Your task to perform on an android device: Open location settings Image 0: 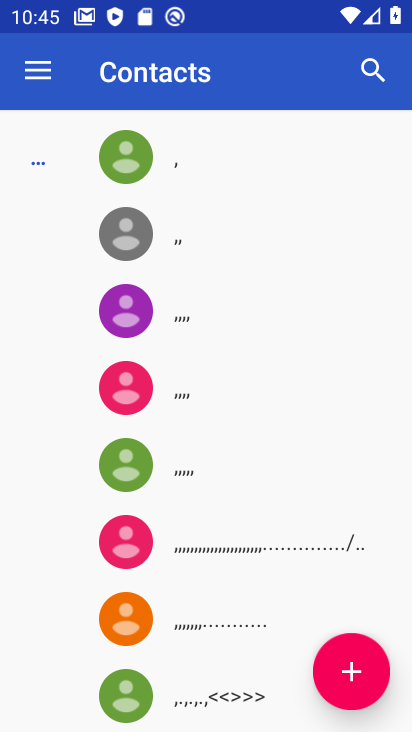
Step 0: press home button
Your task to perform on an android device: Open location settings Image 1: 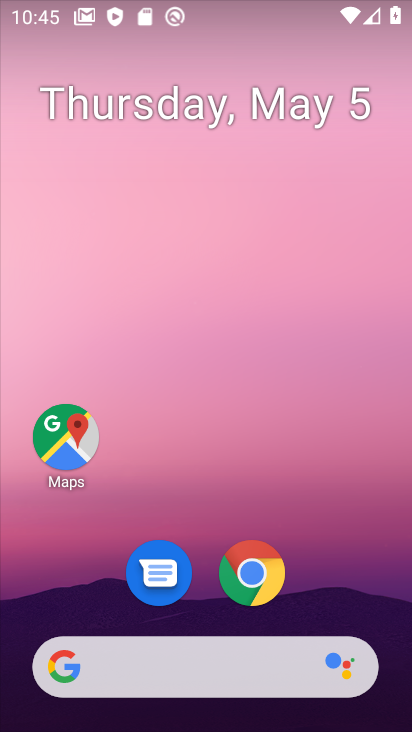
Step 1: drag from (322, 570) to (329, 192)
Your task to perform on an android device: Open location settings Image 2: 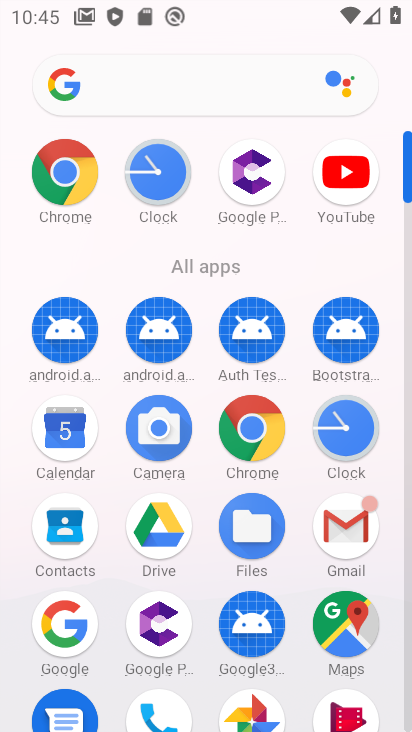
Step 2: drag from (190, 670) to (238, 223)
Your task to perform on an android device: Open location settings Image 3: 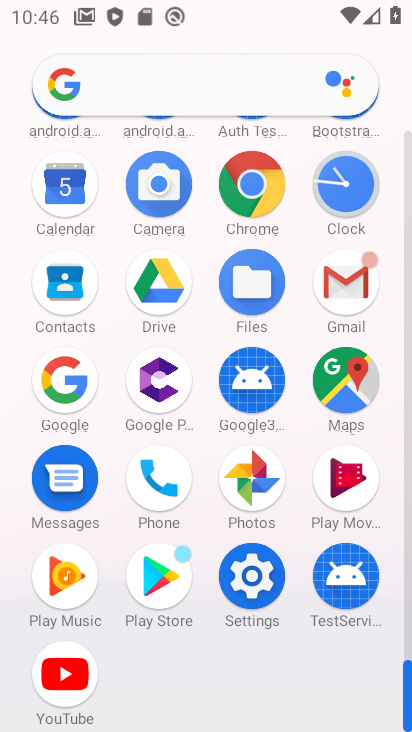
Step 3: click (244, 583)
Your task to perform on an android device: Open location settings Image 4: 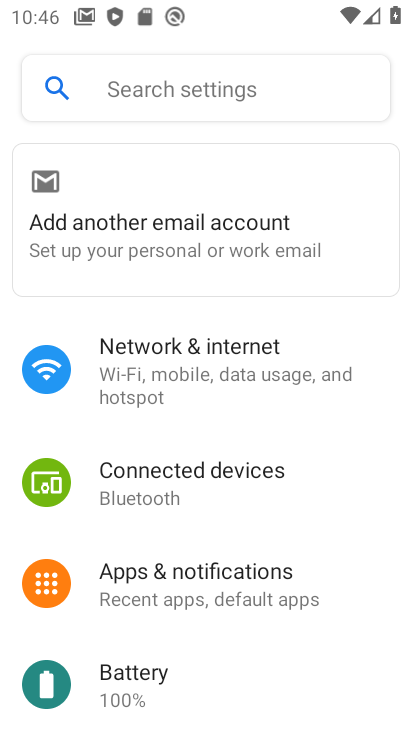
Step 4: drag from (203, 640) to (280, 233)
Your task to perform on an android device: Open location settings Image 5: 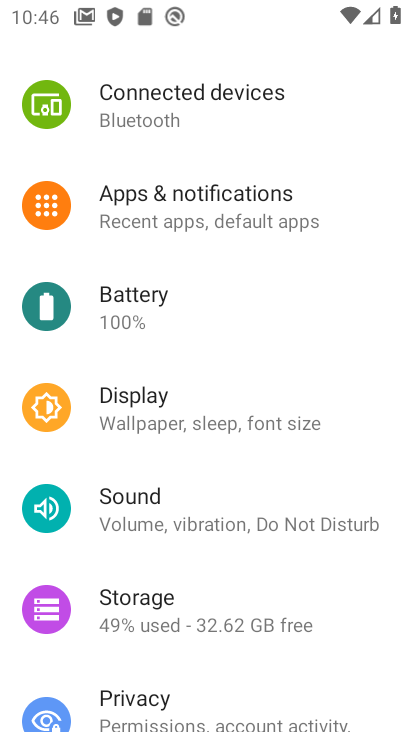
Step 5: drag from (168, 652) to (286, 202)
Your task to perform on an android device: Open location settings Image 6: 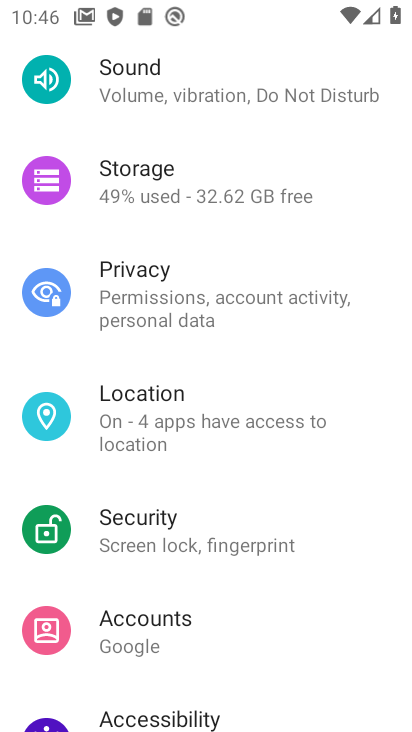
Step 6: click (160, 411)
Your task to perform on an android device: Open location settings Image 7: 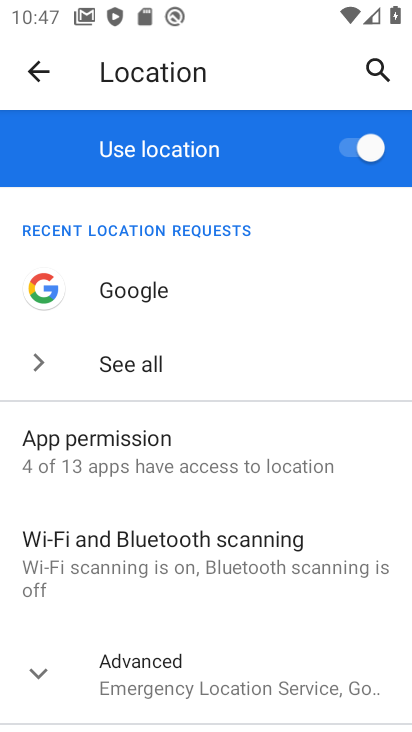
Step 7: task complete